Your task to perform on an android device: Open eBay Image 0: 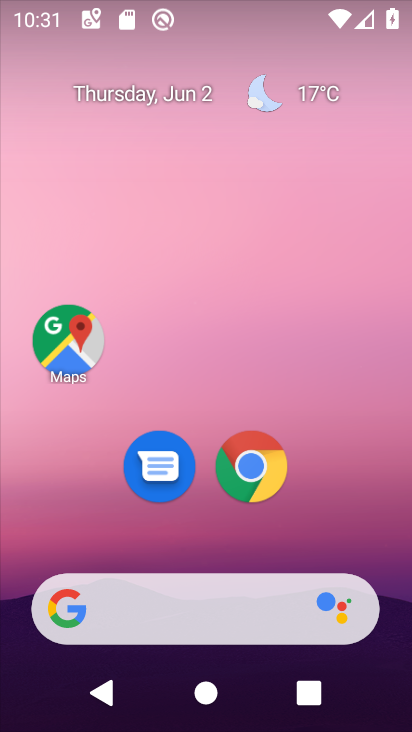
Step 0: click (253, 460)
Your task to perform on an android device: Open eBay Image 1: 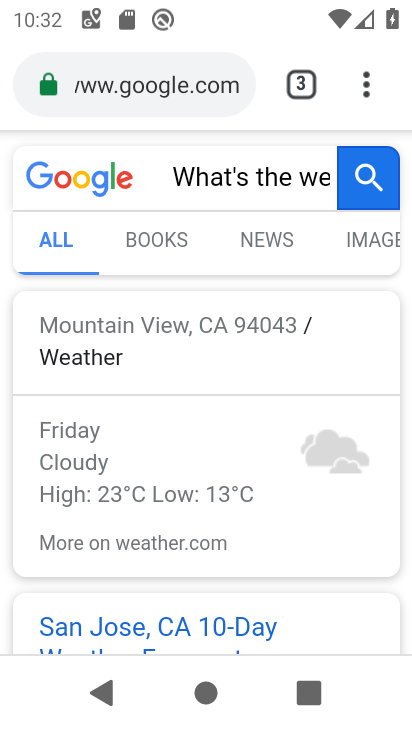
Step 1: click (354, 76)
Your task to perform on an android device: Open eBay Image 2: 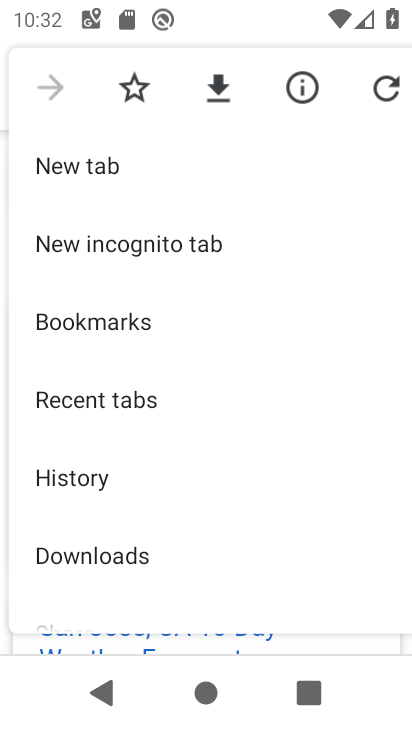
Step 2: click (128, 164)
Your task to perform on an android device: Open eBay Image 3: 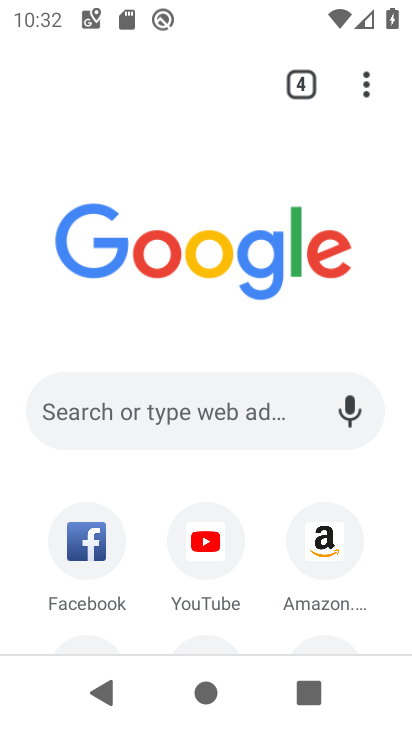
Step 3: drag from (241, 575) to (286, 299)
Your task to perform on an android device: Open eBay Image 4: 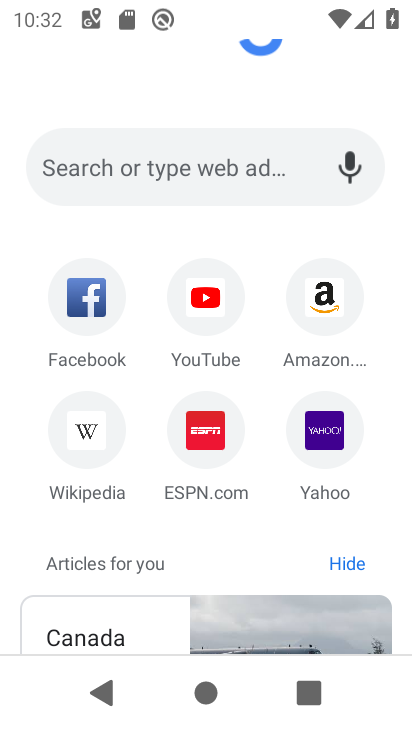
Step 4: click (235, 143)
Your task to perform on an android device: Open eBay Image 5: 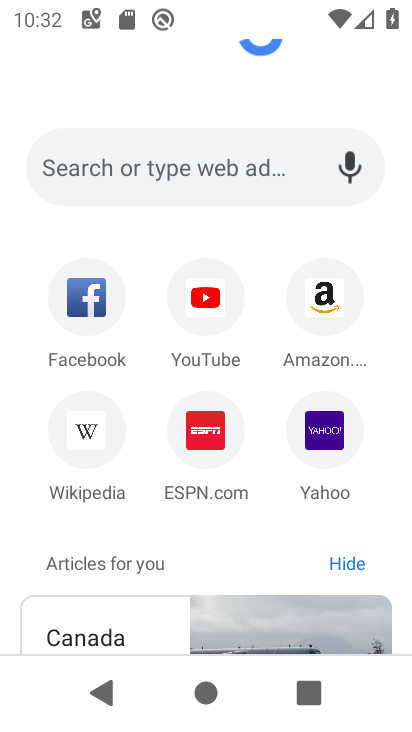
Step 5: type " eBay"
Your task to perform on an android device: Open eBay Image 6: 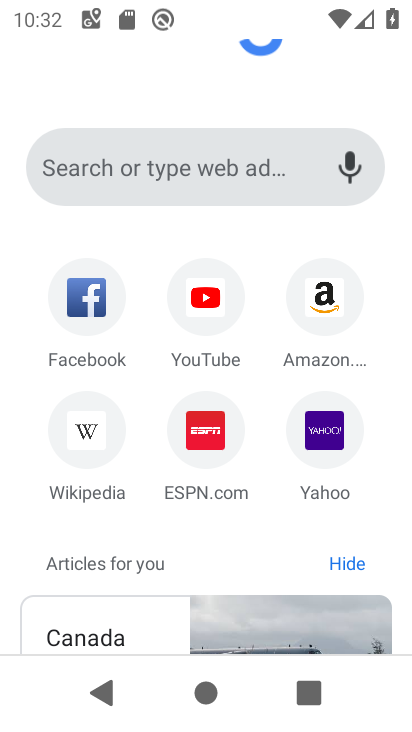
Step 6: click (258, 170)
Your task to perform on an android device: Open eBay Image 7: 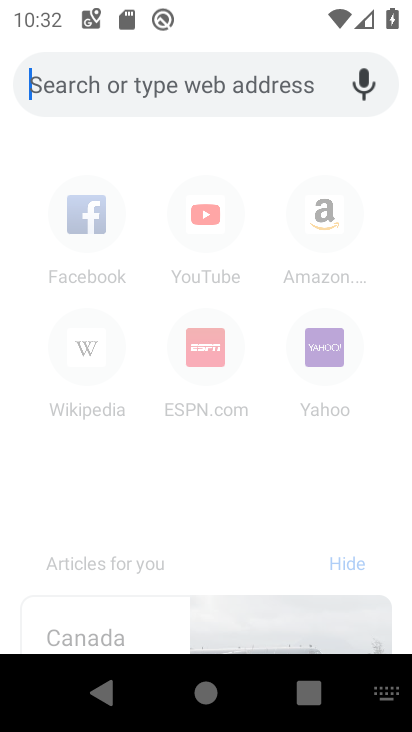
Step 7: click (177, 71)
Your task to perform on an android device: Open eBay Image 8: 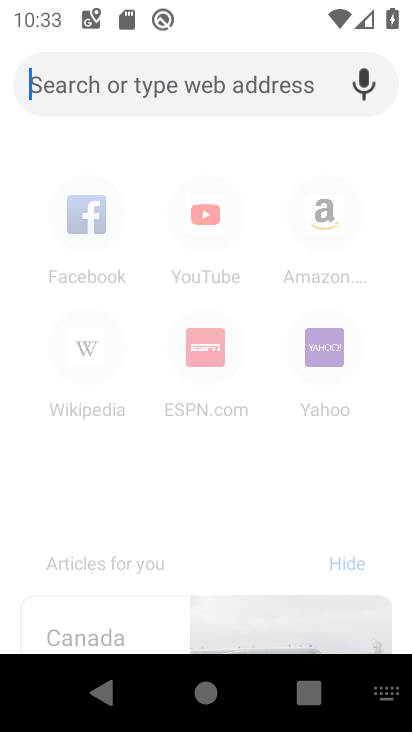
Step 8: type " eBay"
Your task to perform on an android device: Open eBay Image 9: 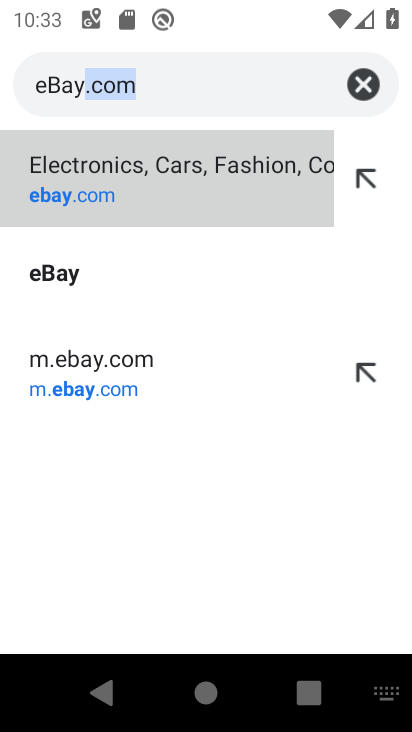
Step 9: click (214, 171)
Your task to perform on an android device: Open eBay Image 10: 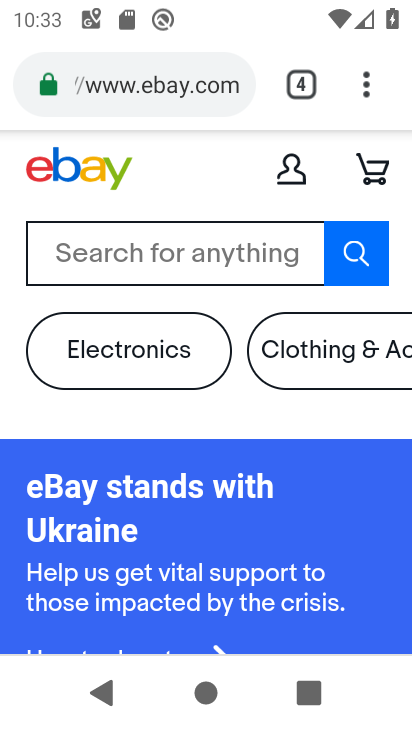
Step 10: task complete